Your task to perform on an android device: Open the phone app and click the voicemail tab. Image 0: 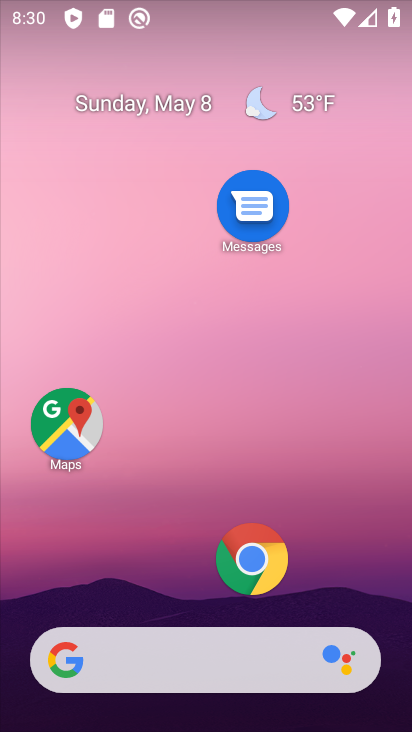
Step 0: drag from (161, 565) to (196, 0)
Your task to perform on an android device: Open the phone app and click the voicemail tab. Image 1: 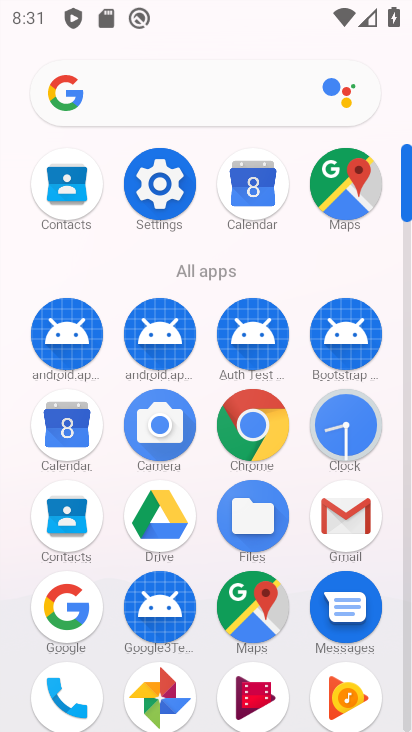
Step 1: click (66, 690)
Your task to perform on an android device: Open the phone app and click the voicemail tab. Image 2: 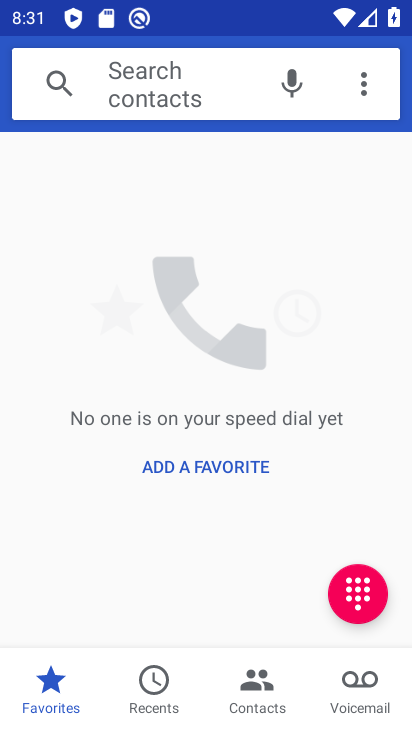
Step 2: click (385, 684)
Your task to perform on an android device: Open the phone app and click the voicemail tab. Image 3: 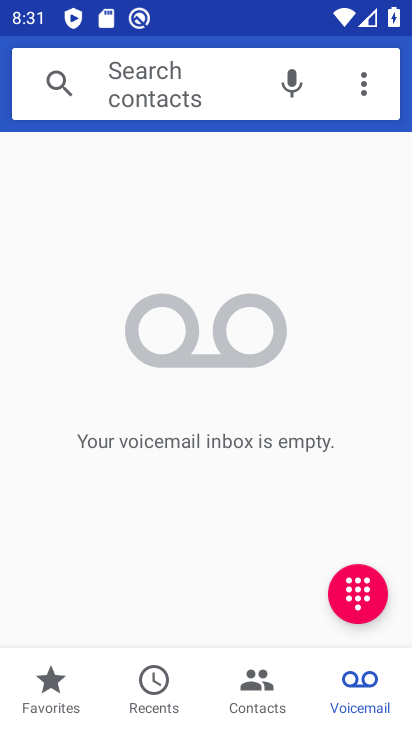
Step 3: task complete